Your task to perform on an android device: toggle javascript in the chrome app Image 0: 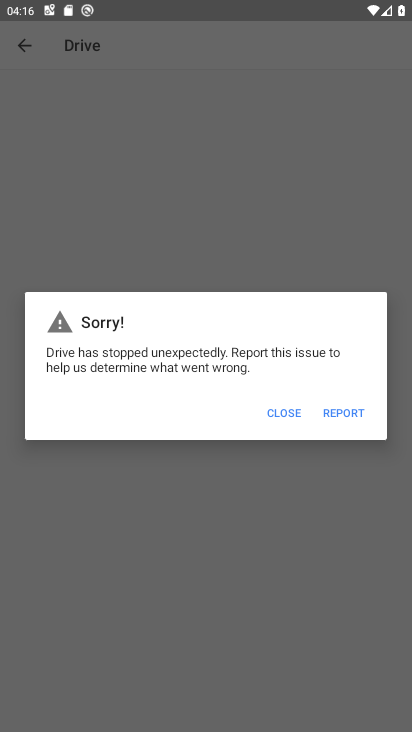
Step 0: press home button
Your task to perform on an android device: toggle javascript in the chrome app Image 1: 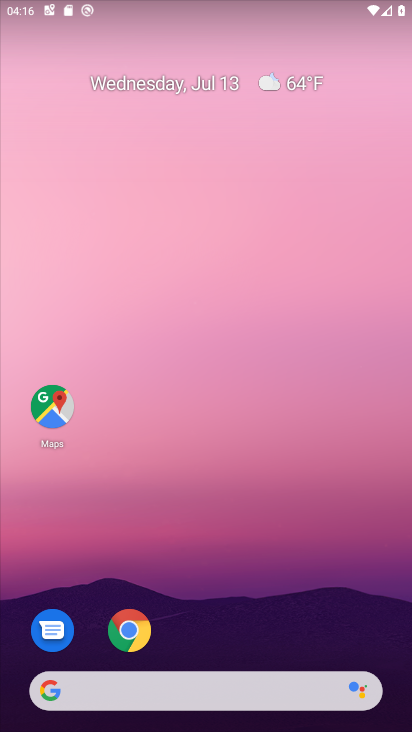
Step 1: click (132, 611)
Your task to perform on an android device: toggle javascript in the chrome app Image 2: 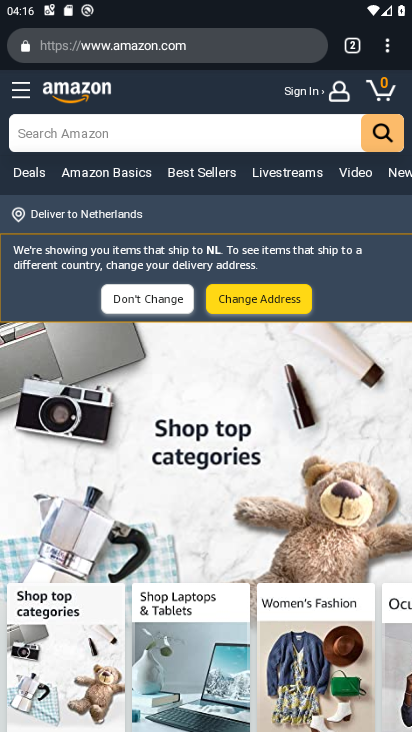
Step 2: click (391, 49)
Your task to perform on an android device: toggle javascript in the chrome app Image 3: 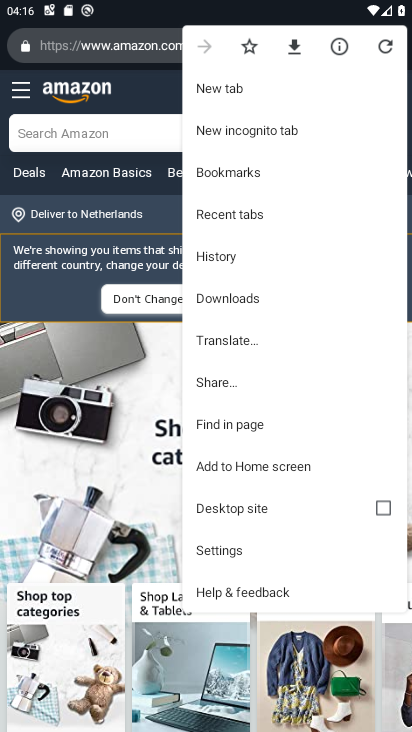
Step 3: click (219, 541)
Your task to perform on an android device: toggle javascript in the chrome app Image 4: 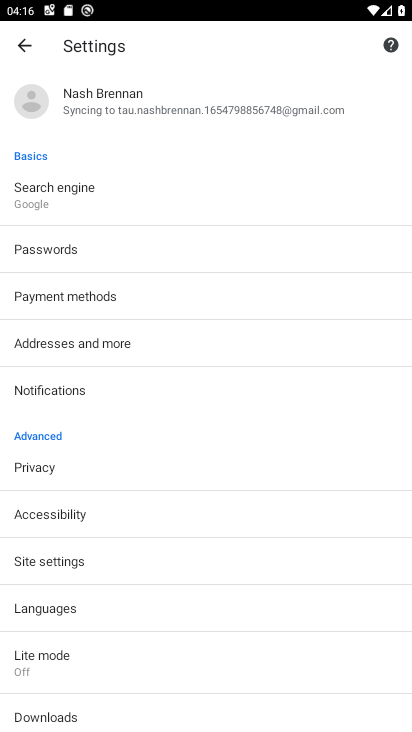
Step 4: click (109, 569)
Your task to perform on an android device: toggle javascript in the chrome app Image 5: 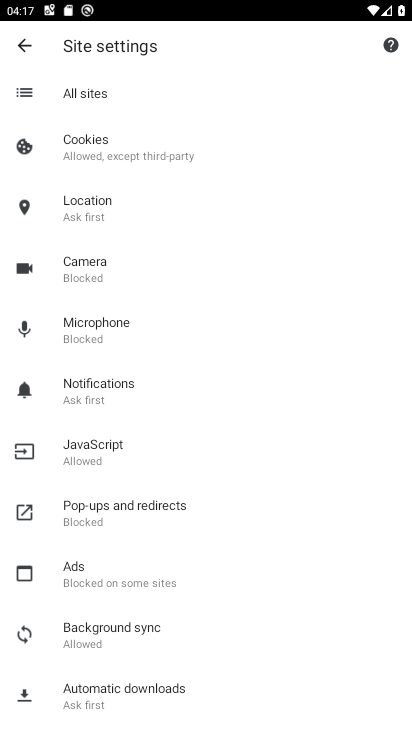
Step 5: click (151, 453)
Your task to perform on an android device: toggle javascript in the chrome app Image 6: 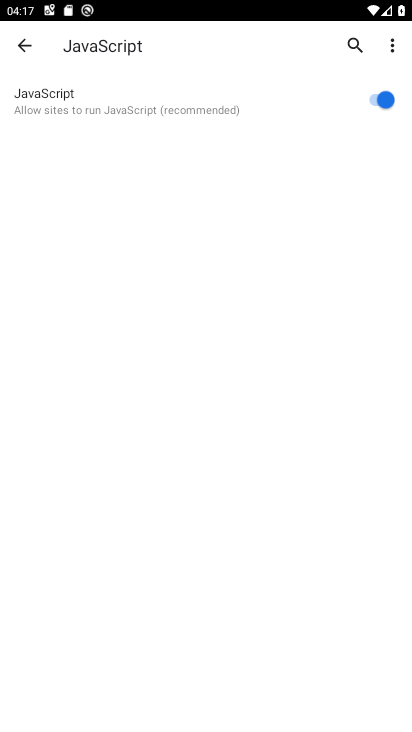
Step 6: click (385, 104)
Your task to perform on an android device: toggle javascript in the chrome app Image 7: 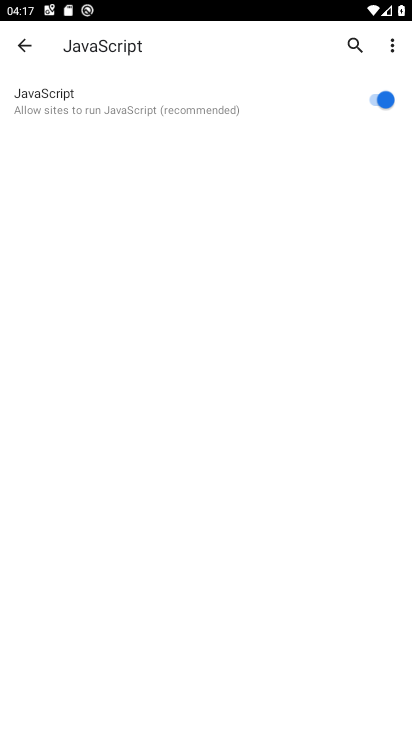
Step 7: click (385, 104)
Your task to perform on an android device: toggle javascript in the chrome app Image 8: 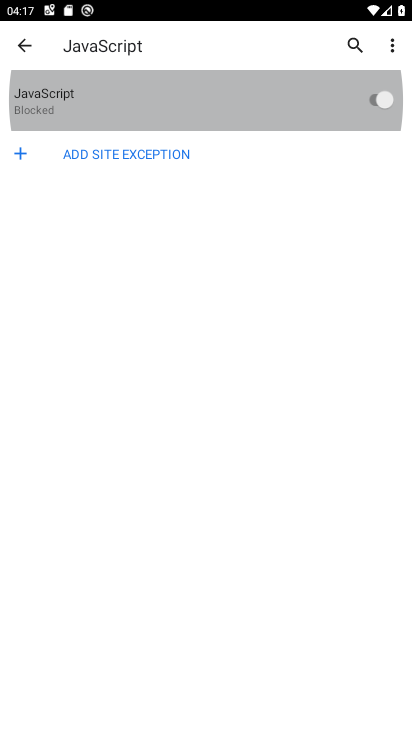
Step 8: click (385, 104)
Your task to perform on an android device: toggle javascript in the chrome app Image 9: 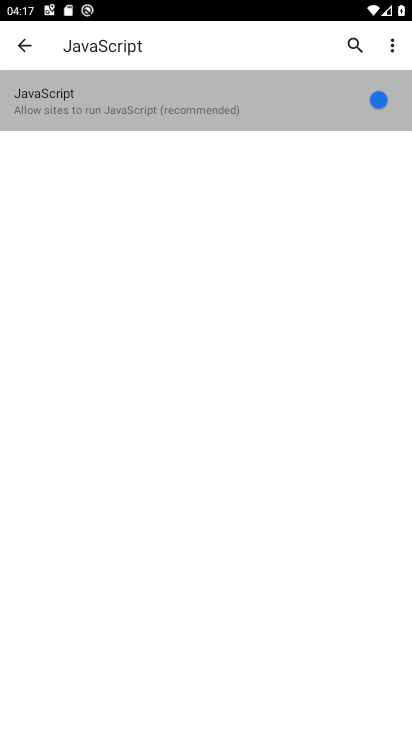
Step 9: click (385, 104)
Your task to perform on an android device: toggle javascript in the chrome app Image 10: 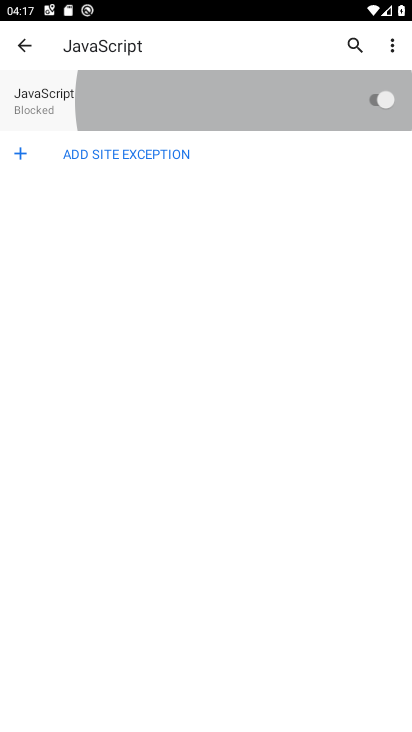
Step 10: click (385, 104)
Your task to perform on an android device: toggle javascript in the chrome app Image 11: 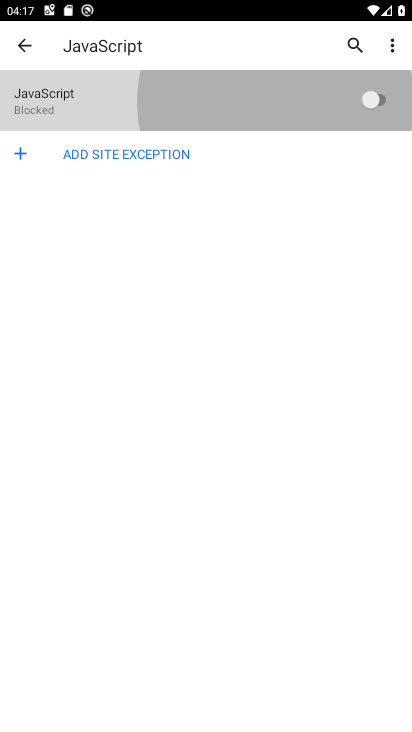
Step 11: click (385, 104)
Your task to perform on an android device: toggle javascript in the chrome app Image 12: 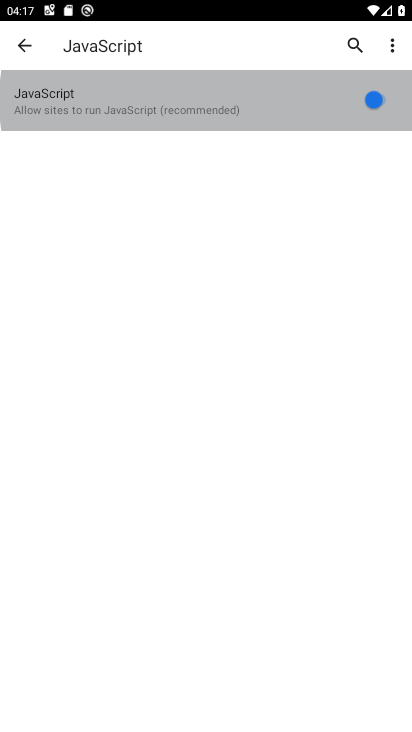
Step 12: click (385, 104)
Your task to perform on an android device: toggle javascript in the chrome app Image 13: 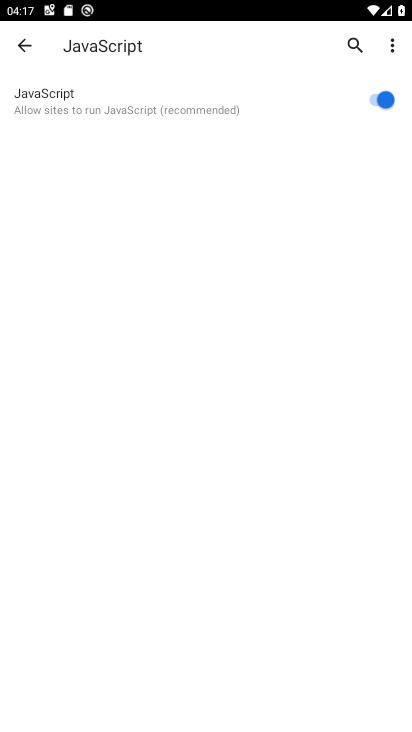
Step 13: task complete